Your task to perform on an android device: check data usage Image 0: 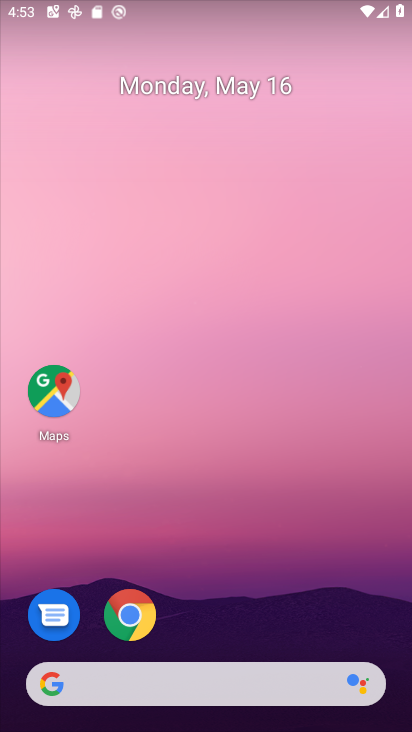
Step 0: drag from (246, 630) to (205, 235)
Your task to perform on an android device: check data usage Image 1: 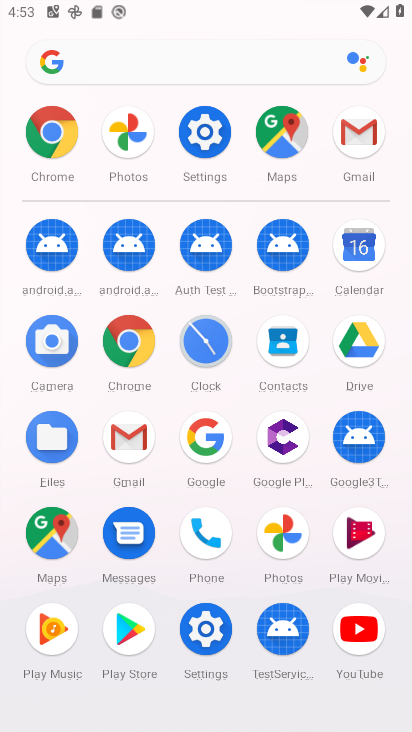
Step 1: click (200, 138)
Your task to perform on an android device: check data usage Image 2: 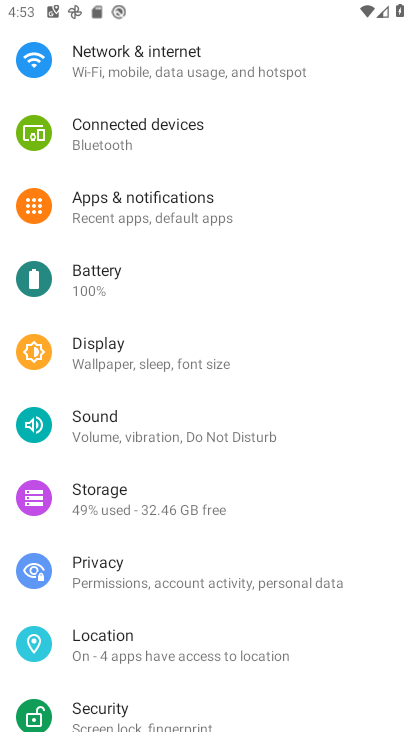
Step 2: click (120, 75)
Your task to perform on an android device: check data usage Image 3: 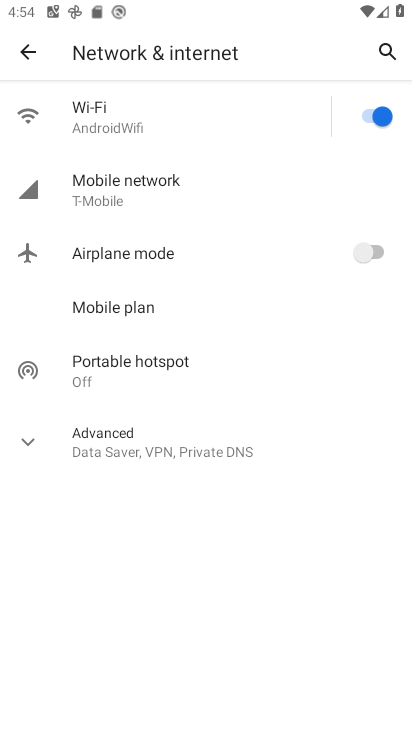
Step 3: click (179, 183)
Your task to perform on an android device: check data usage Image 4: 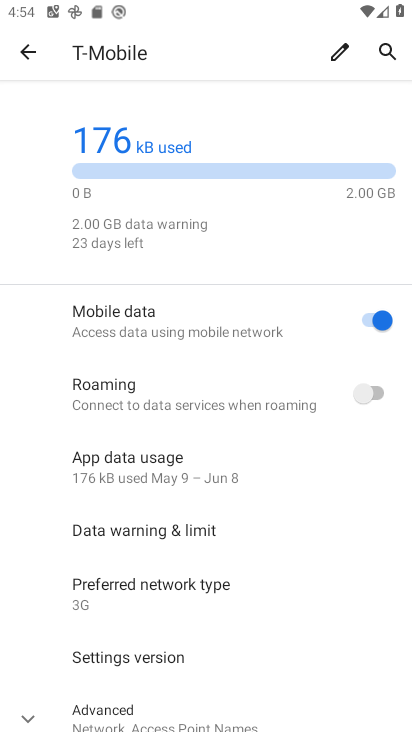
Step 4: task complete